Your task to perform on an android device: open chrome and create a bookmark for the current page Image 0: 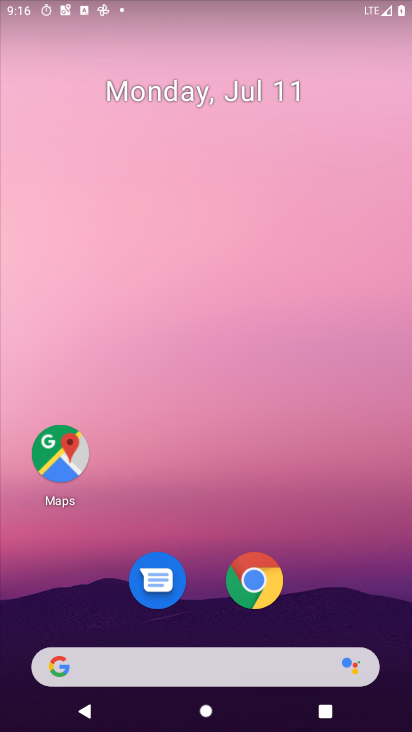
Step 0: click (271, 577)
Your task to perform on an android device: open chrome and create a bookmark for the current page Image 1: 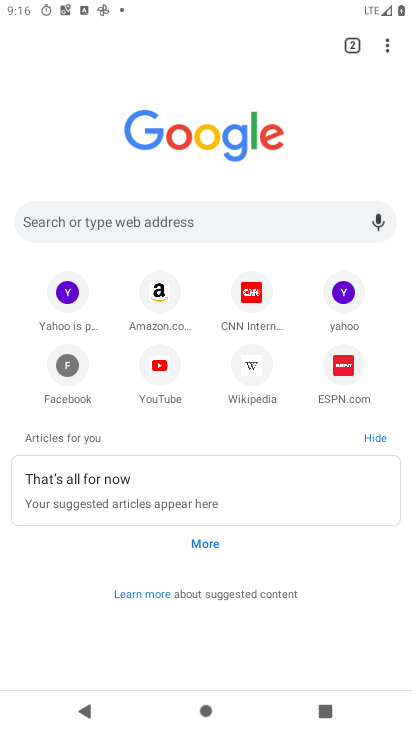
Step 1: click (382, 44)
Your task to perform on an android device: open chrome and create a bookmark for the current page Image 2: 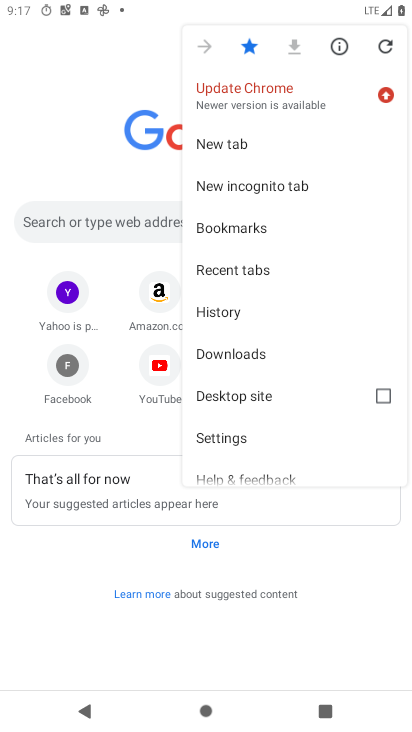
Step 2: task complete